Your task to perform on an android device: What's the weather going to be this weekend? Image 0: 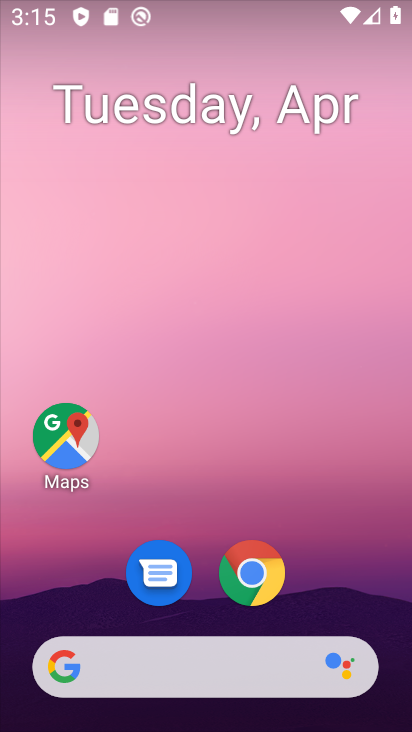
Step 0: drag from (163, 296) to (391, 272)
Your task to perform on an android device: What's the weather going to be this weekend? Image 1: 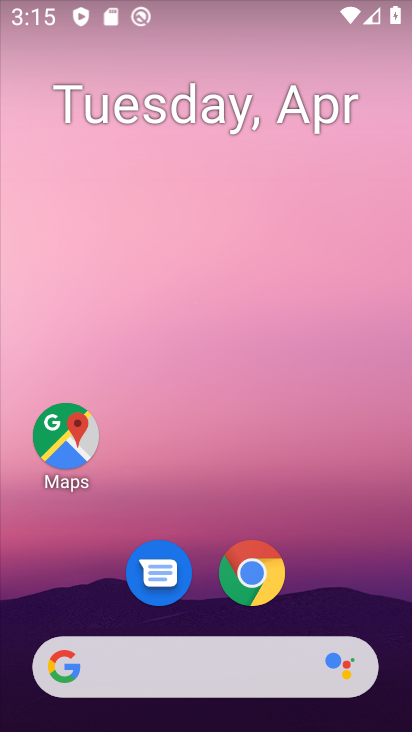
Step 1: click (157, 667)
Your task to perform on an android device: What's the weather going to be this weekend? Image 2: 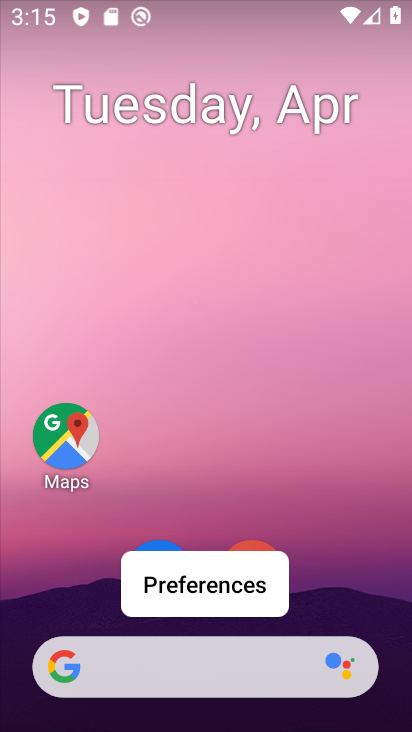
Step 2: click (233, 663)
Your task to perform on an android device: What's the weather going to be this weekend? Image 3: 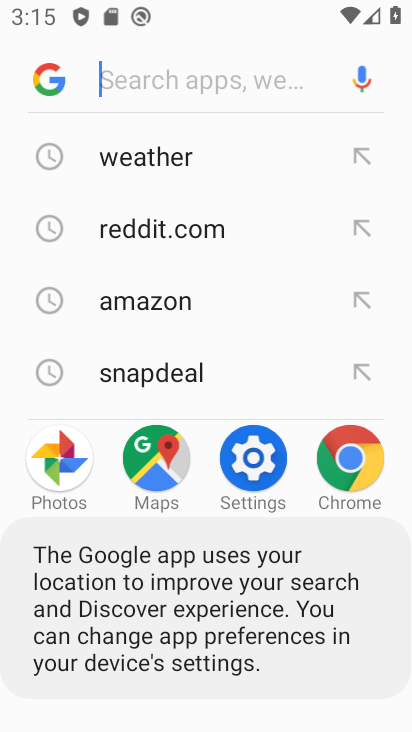
Step 3: click (197, 161)
Your task to perform on an android device: What's the weather going to be this weekend? Image 4: 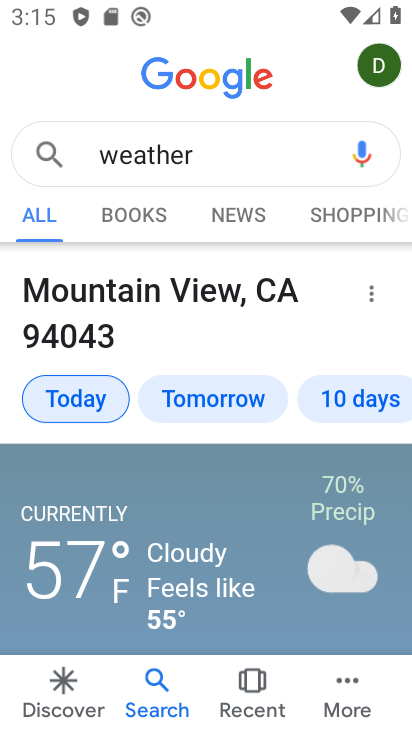
Step 4: click (344, 398)
Your task to perform on an android device: What's the weather going to be this weekend? Image 5: 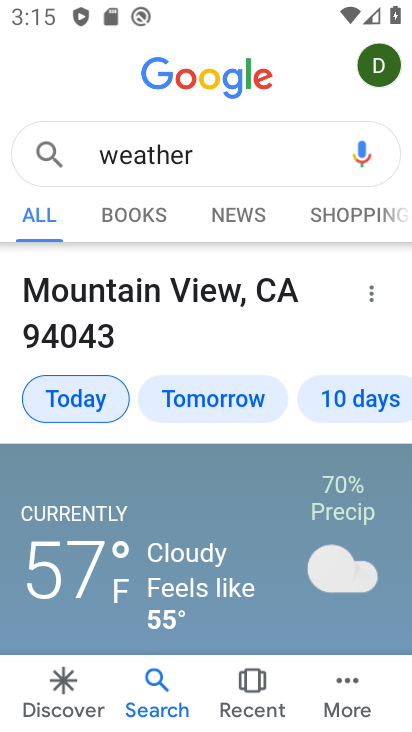
Step 5: click (363, 406)
Your task to perform on an android device: What's the weather going to be this weekend? Image 6: 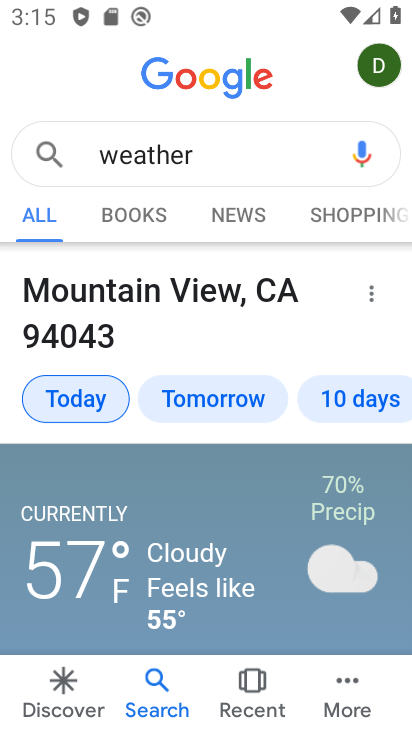
Step 6: drag from (270, 480) to (335, 291)
Your task to perform on an android device: What's the weather going to be this weekend? Image 7: 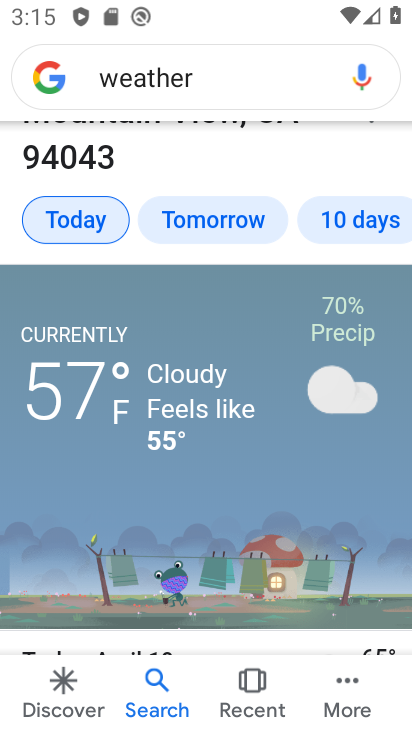
Step 7: click (359, 229)
Your task to perform on an android device: What's the weather going to be this weekend? Image 8: 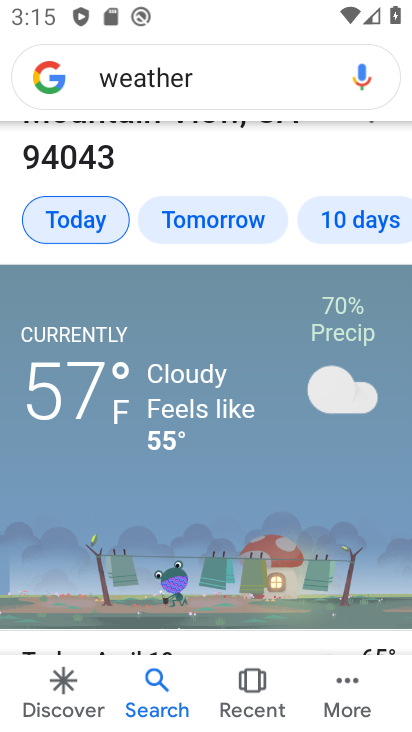
Step 8: click (226, 244)
Your task to perform on an android device: What's the weather going to be this weekend? Image 9: 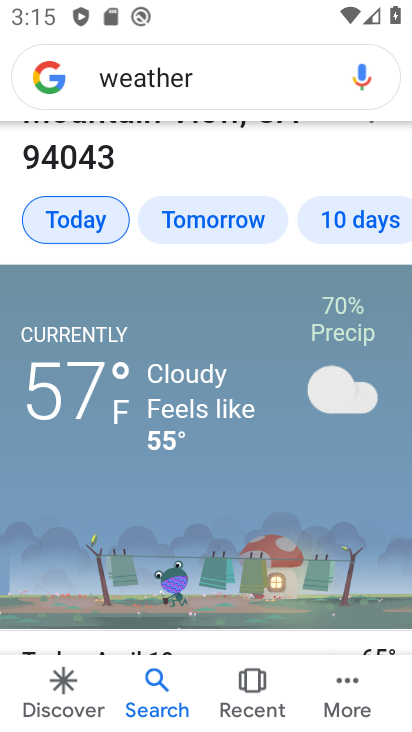
Step 9: click (350, 213)
Your task to perform on an android device: What's the weather going to be this weekend? Image 10: 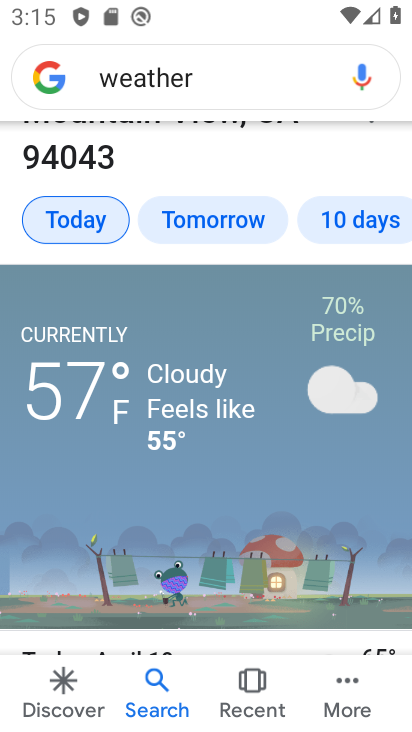
Step 10: click (357, 220)
Your task to perform on an android device: What's the weather going to be this weekend? Image 11: 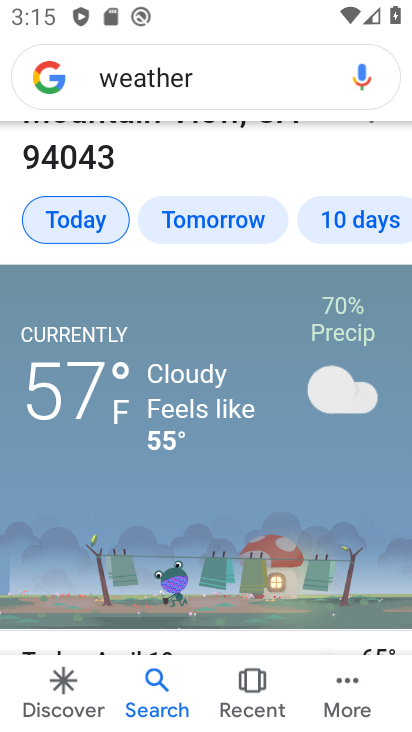
Step 11: click (362, 224)
Your task to perform on an android device: What's the weather going to be this weekend? Image 12: 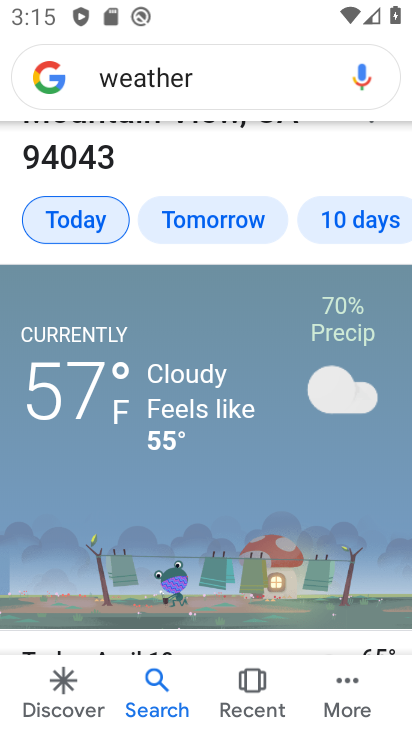
Step 12: click (362, 224)
Your task to perform on an android device: What's the weather going to be this weekend? Image 13: 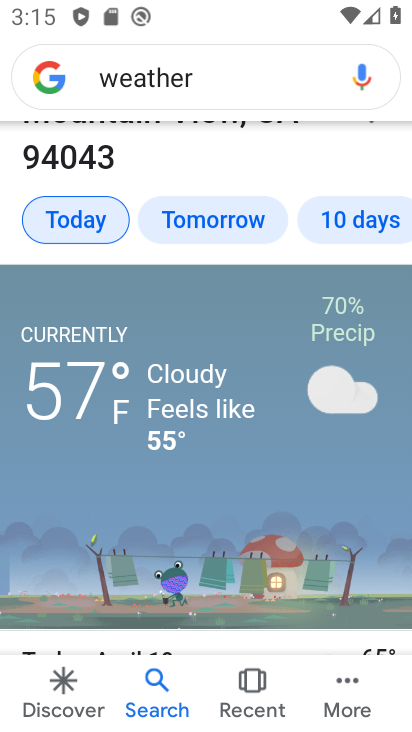
Step 13: click (362, 224)
Your task to perform on an android device: What's the weather going to be this weekend? Image 14: 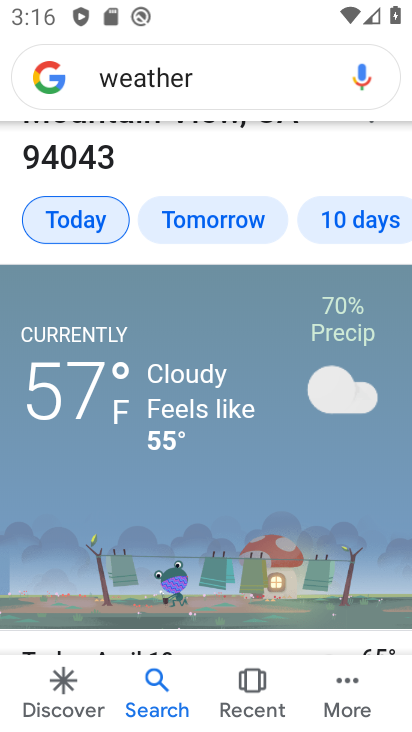
Step 14: click (342, 227)
Your task to perform on an android device: What's the weather going to be this weekend? Image 15: 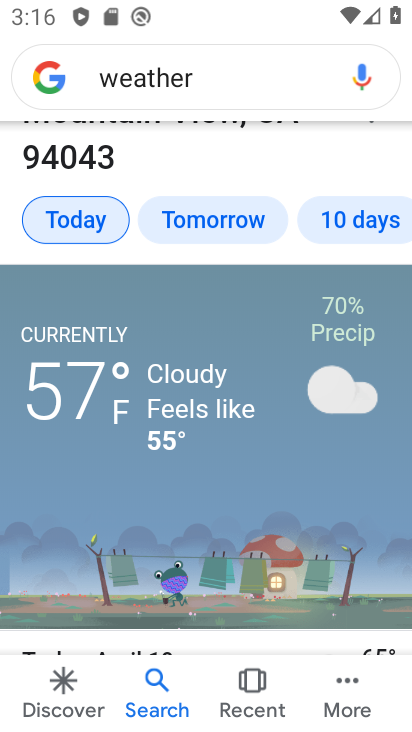
Step 15: click (255, 229)
Your task to perform on an android device: What's the weather going to be this weekend? Image 16: 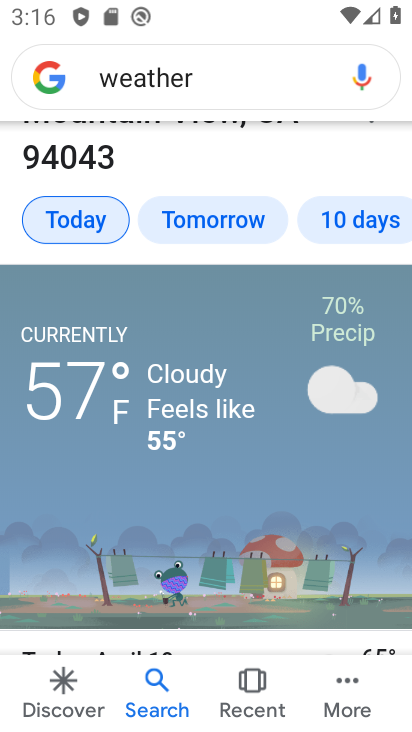
Step 16: click (343, 235)
Your task to perform on an android device: What's the weather going to be this weekend? Image 17: 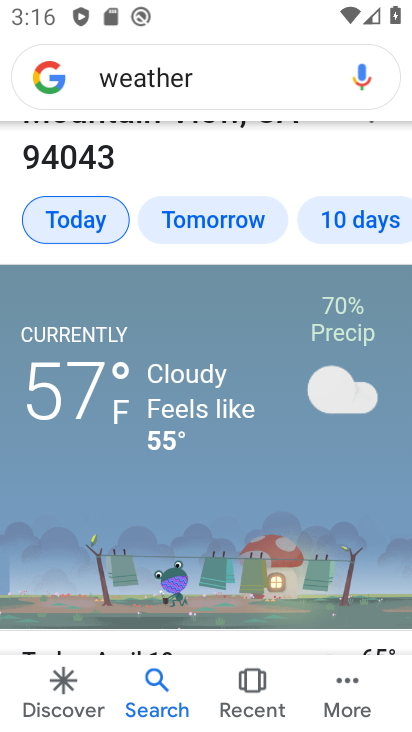
Step 17: click (345, 232)
Your task to perform on an android device: What's the weather going to be this weekend? Image 18: 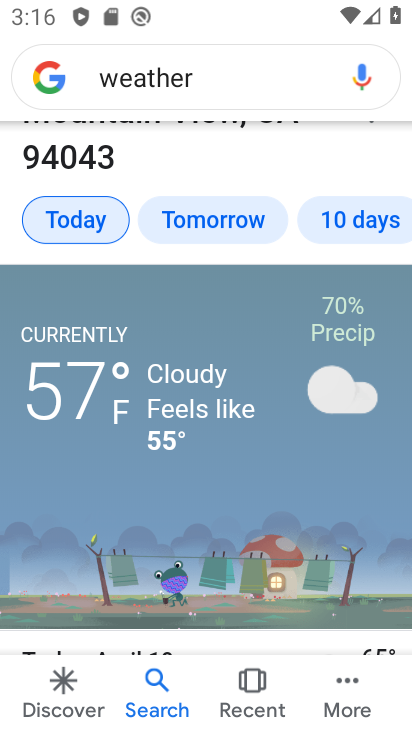
Step 18: click (280, 452)
Your task to perform on an android device: What's the weather going to be this weekend? Image 19: 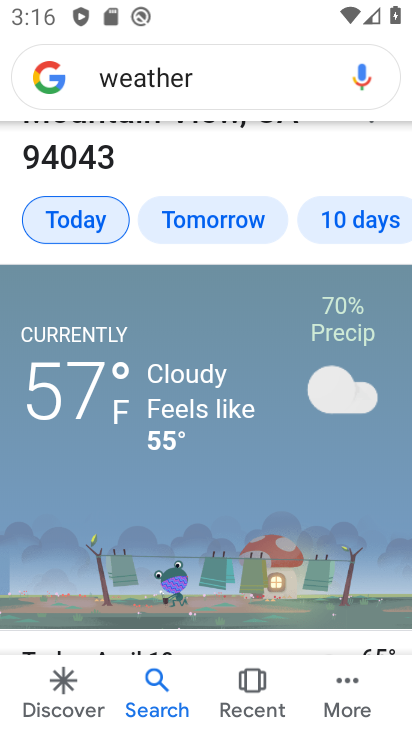
Step 19: click (285, 320)
Your task to perform on an android device: What's the weather going to be this weekend? Image 20: 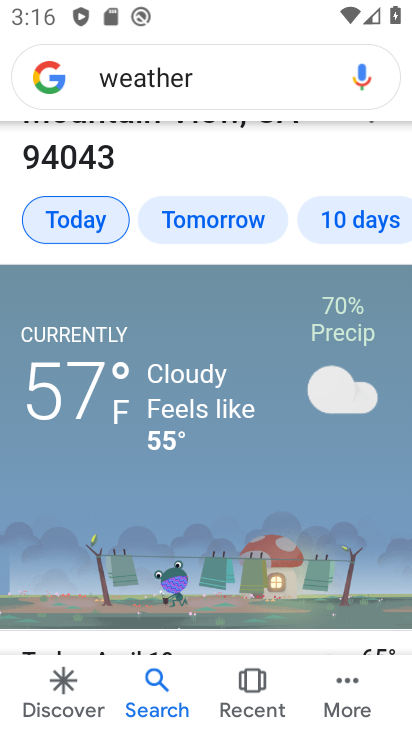
Step 20: click (335, 224)
Your task to perform on an android device: What's the weather going to be this weekend? Image 21: 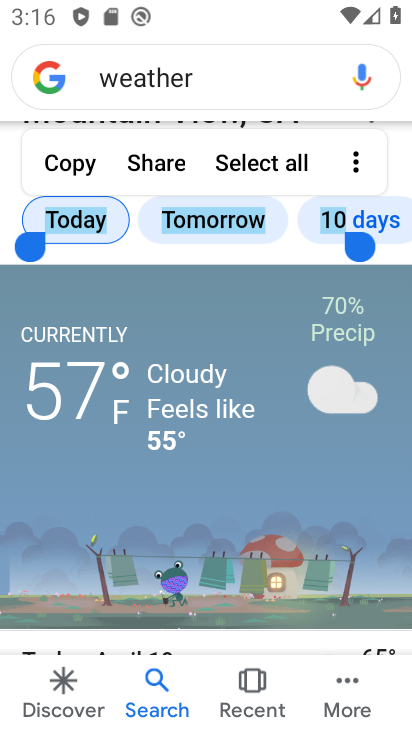
Step 21: click (351, 325)
Your task to perform on an android device: What's the weather going to be this weekend? Image 22: 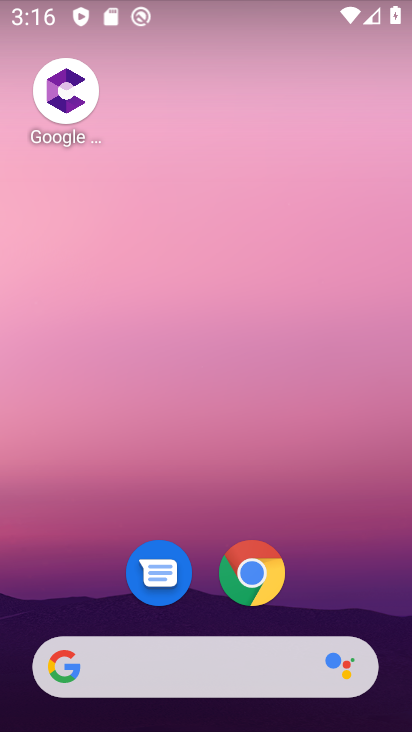
Step 22: click (212, 663)
Your task to perform on an android device: What's the weather going to be this weekend? Image 23: 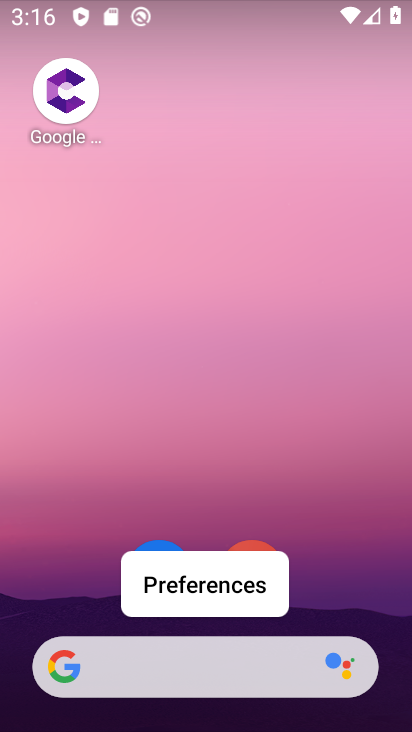
Step 23: click (232, 678)
Your task to perform on an android device: What's the weather going to be this weekend? Image 24: 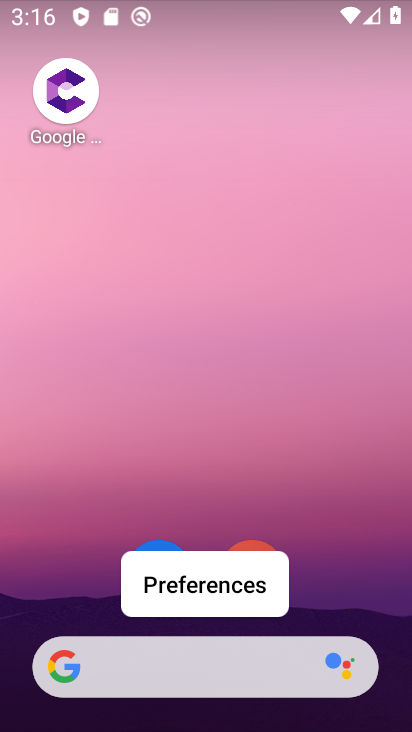
Step 24: click (224, 672)
Your task to perform on an android device: What's the weather going to be this weekend? Image 25: 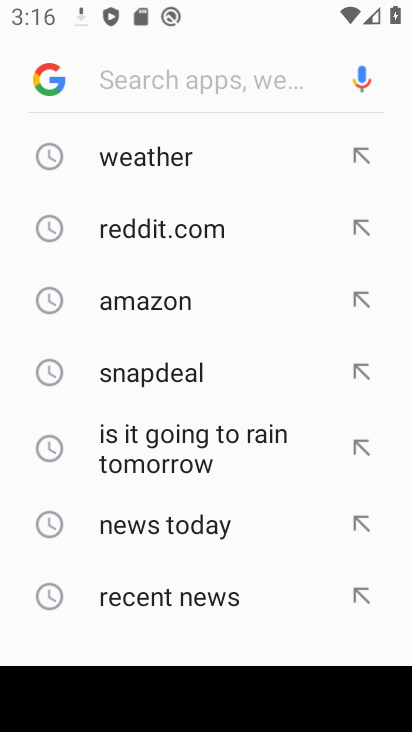
Step 25: click (185, 96)
Your task to perform on an android device: What's the weather going to be this weekend? Image 26: 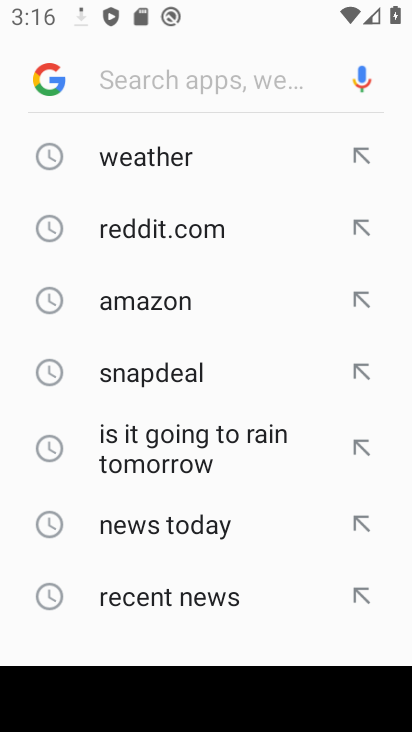
Step 26: click (196, 157)
Your task to perform on an android device: What's the weather going to be this weekend? Image 27: 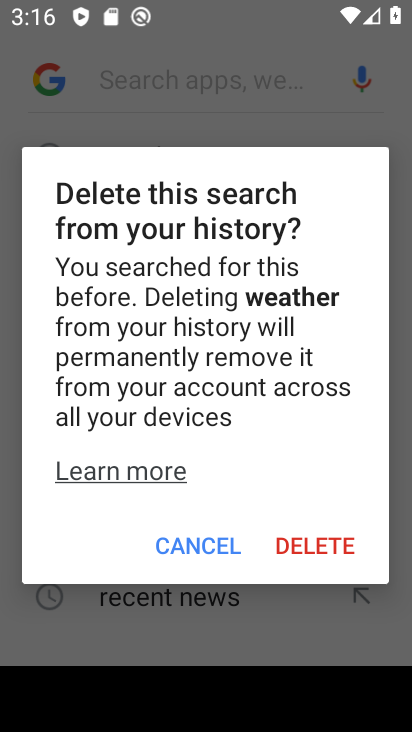
Step 27: click (237, 541)
Your task to perform on an android device: What's the weather going to be this weekend? Image 28: 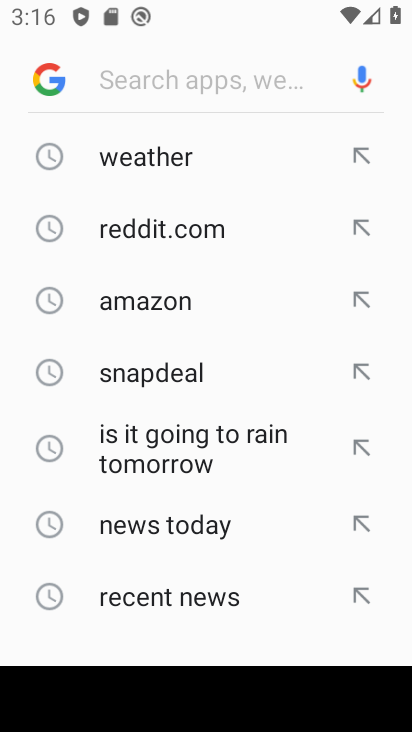
Step 28: click (242, 158)
Your task to perform on an android device: What's the weather going to be this weekend? Image 29: 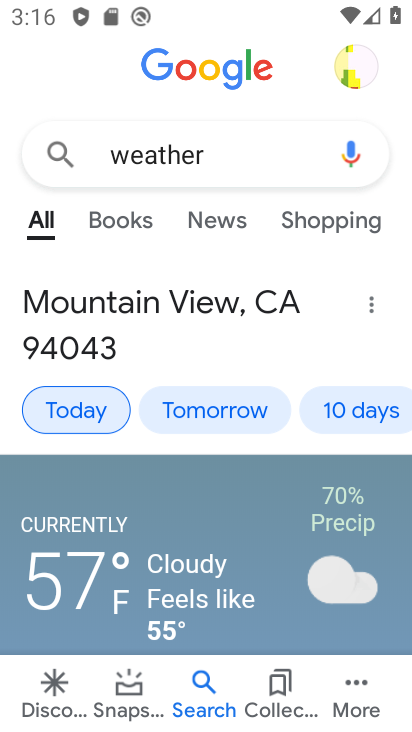
Step 29: click (372, 421)
Your task to perform on an android device: What's the weather going to be this weekend? Image 30: 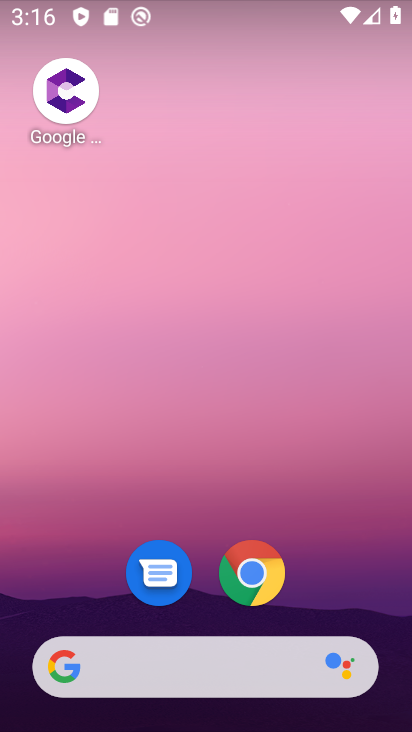
Step 30: click (203, 679)
Your task to perform on an android device: What's the weather going to be this weekend? Image 31: 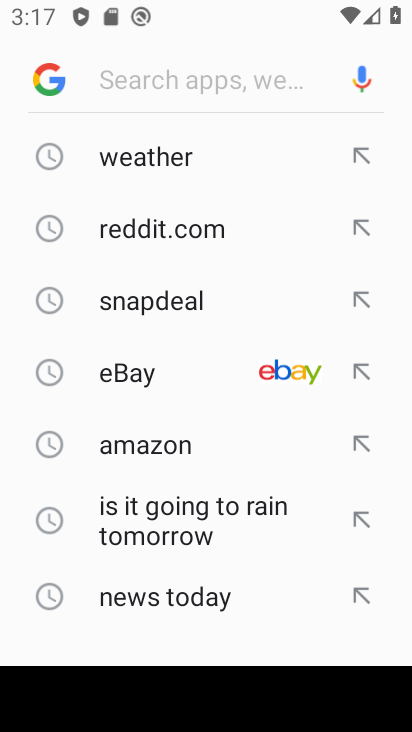
Step 31: click (259, 172)
Your task to perform on an android device: What's the weather going to be this weekend? Image 32: 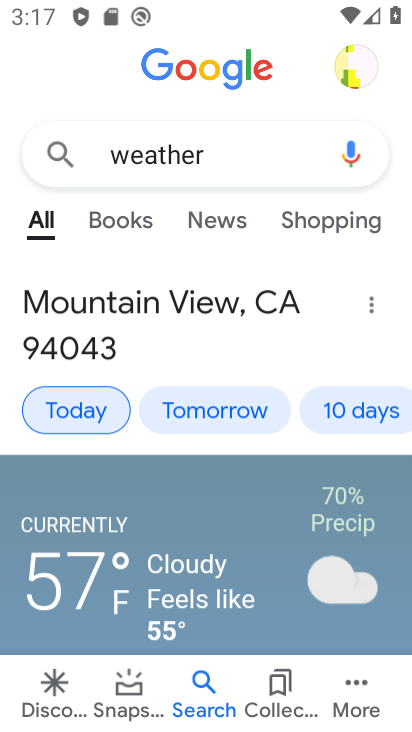
Step 32: click (360, 424)
Your task to perform on an android device: What's the weather going to be this weekend? Image 33: 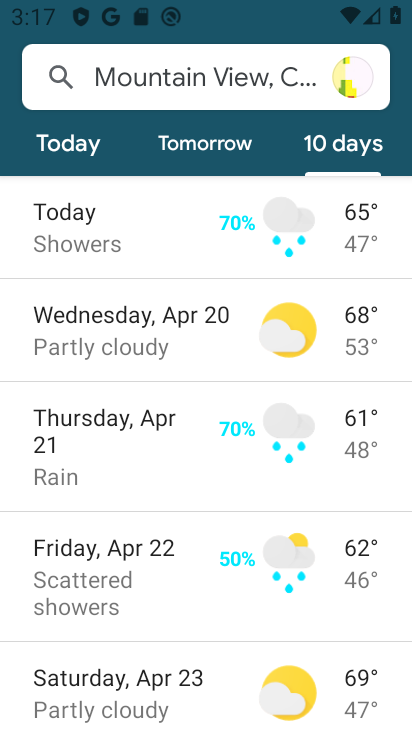
Step 33: task complete